Your task to perform on an android device: turn notification dots off Image 0: 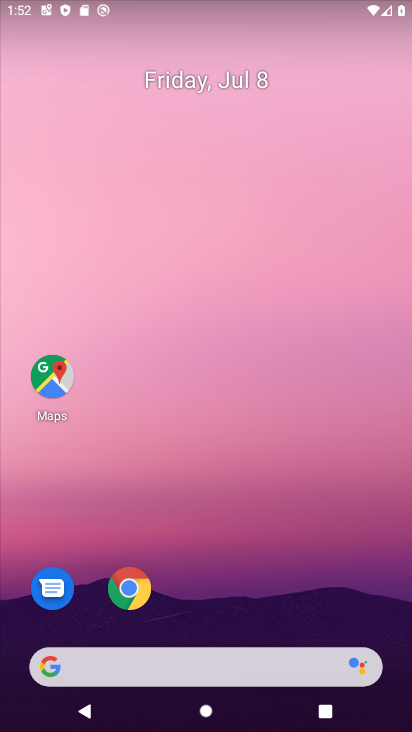
Step 0: press home button
Your task to perform on an android device: turn notification dots off Image 1: 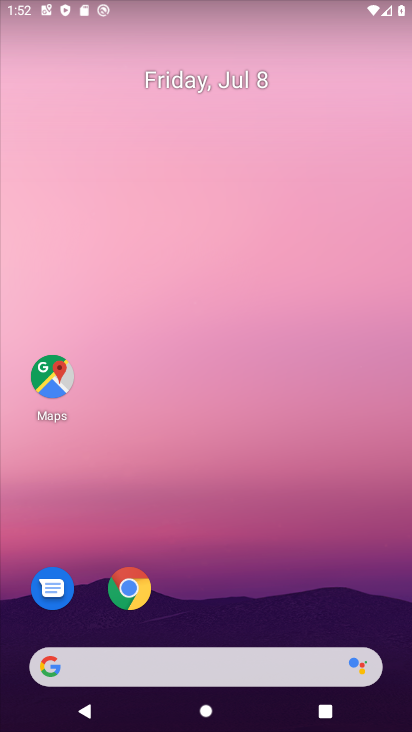
Step 1: drag from (278, 529) to (274, 68)
Your task to perform on an android device: turn notification dots off Image 2: 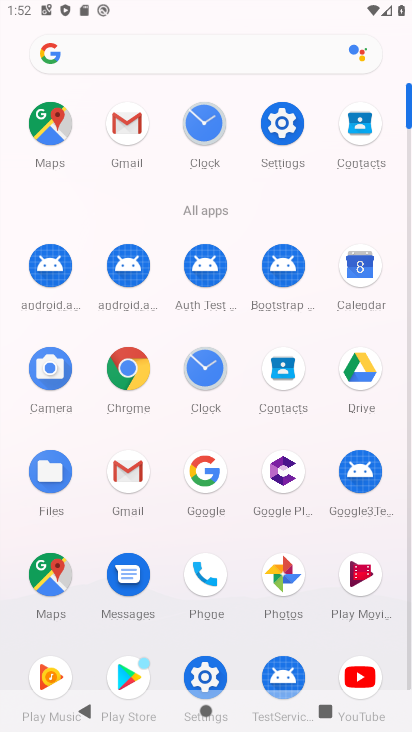
Step 2: click (281, 123)
Your task to perform on an android device: turn notification dots off Image 3: 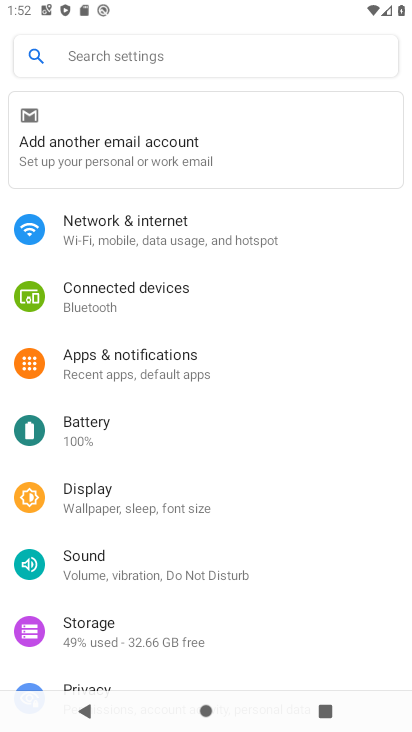
Step 3: click (120, 369)
Your task to perform on an android device: turn notification dots off Image 4: 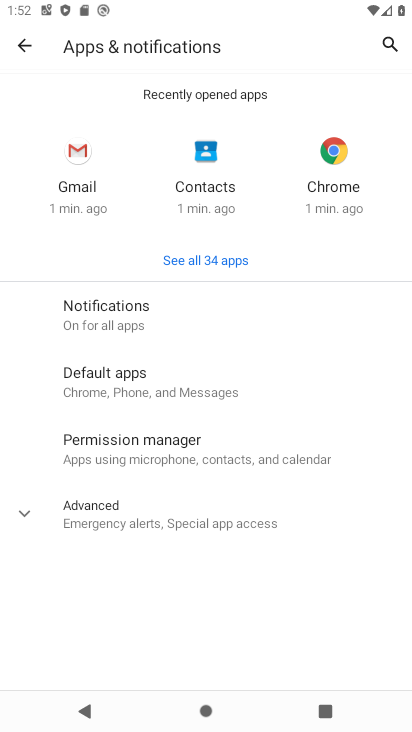
Step 4: click (89, 312)
Your task to perform on an android device: turn notification dots off Image 5: 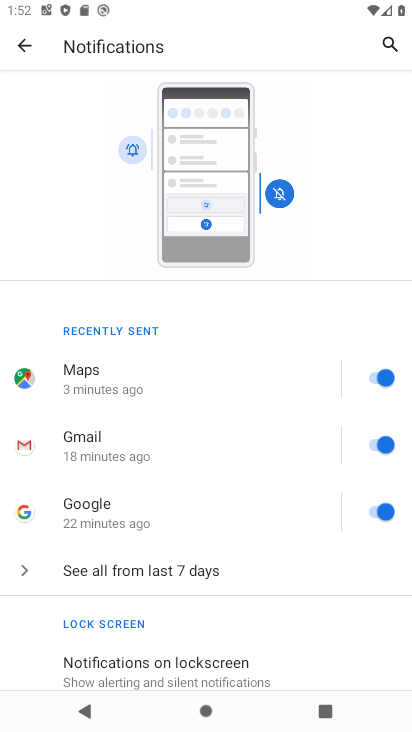
Step 5: drag from (249, 630) to (256, 167)
Your task to perform on an android device: turn notification dots off Image 6: 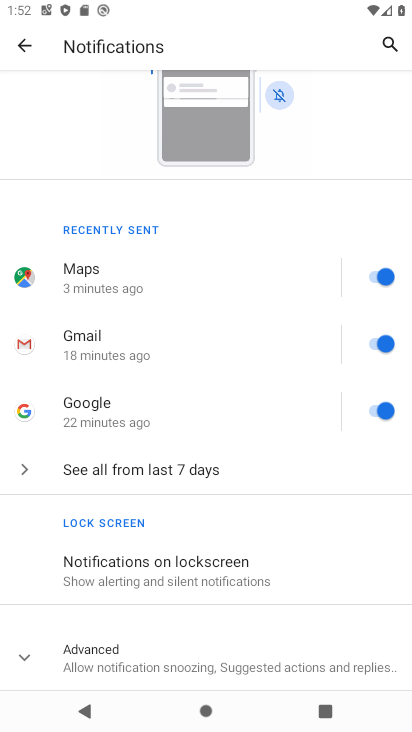
Step 6: click (102, 658)
Your task to perform on an android device: turn notification dots off Image 7: 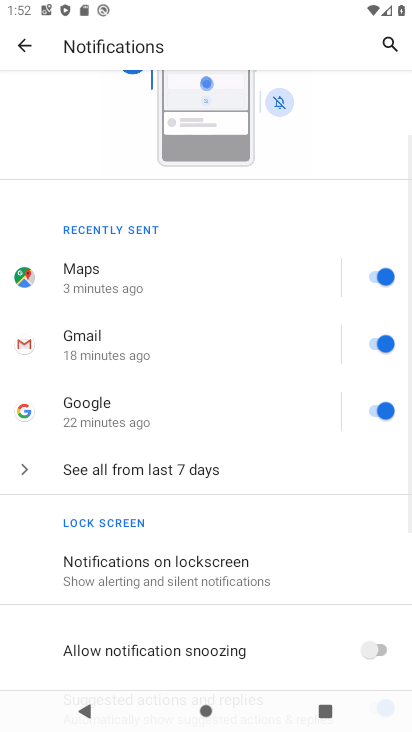
Step 7: drag from (276, 589) to (263, 156)
Your task to perform on an android device: turn notification dots off Image 8: 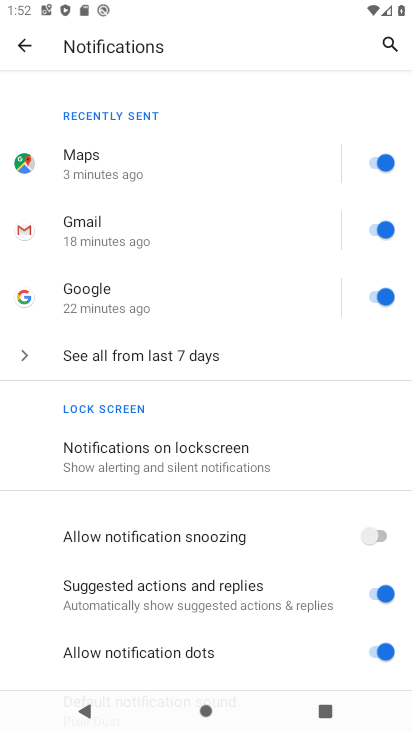
Step 8: click (386, 654)
Your task to perform on an android device: turn notification dots off Image 9: 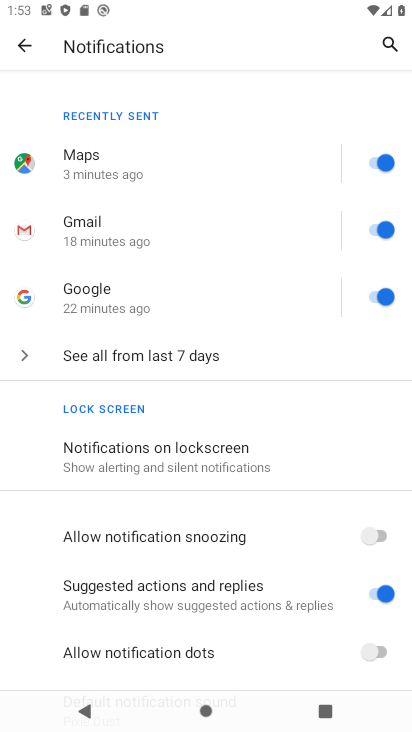
Step 9: task complete